Your task to perform on an android device: Open location settings Image 0: 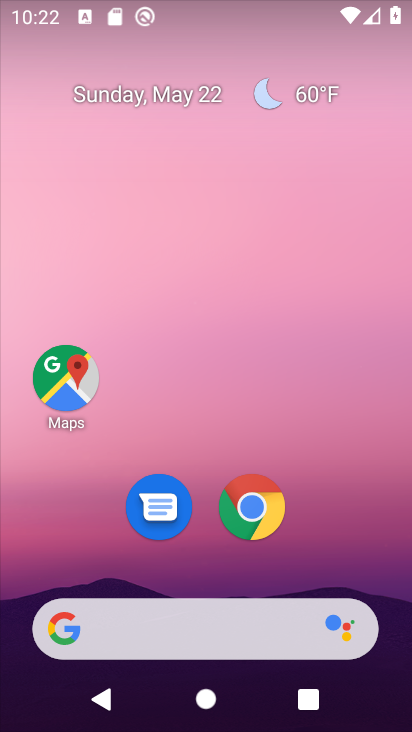
Step 0: drag from (220, 581) to (207, 85)
Your task to perform on an android device: Open location settings Image 1: 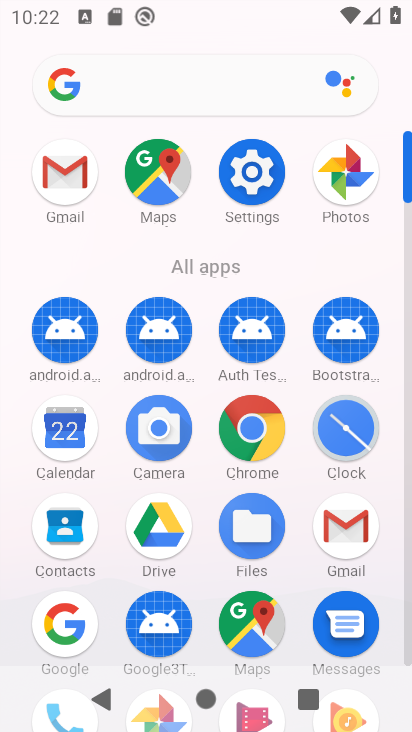
Step 1: click (243, 187)
Your task to perform on an android device: Open location settings Image 2: 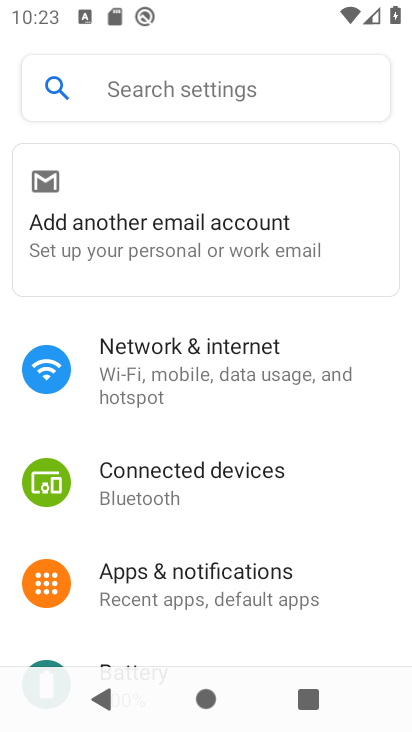
Step 2: drag from (99, 655) to (73, 182)
Your task to perform on an android device: Open location settings Image 3: 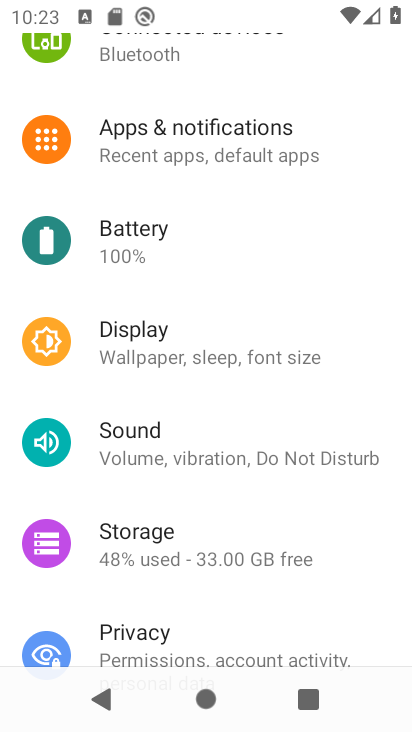
Step 3: drag from (54, 600) to (87, 70)
Your task to perform on an android device: Open location settings Image 4: 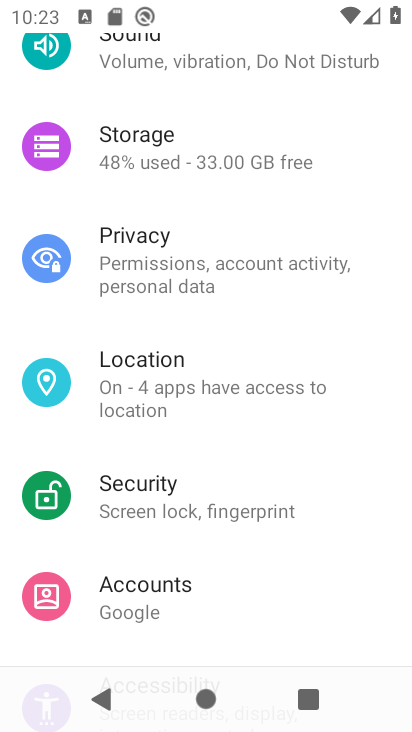
Step 4: click (139, 377)
Your task to perform on an android device: Open location settings Image 5: 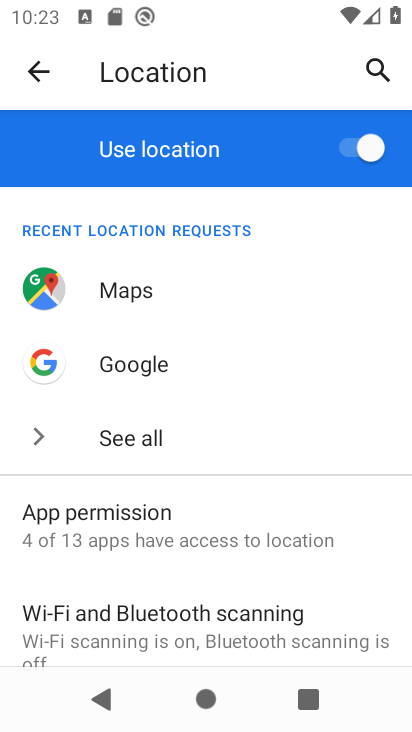
Step 5: task complete